Your task to perform on an android device: show emergency info Image 0: 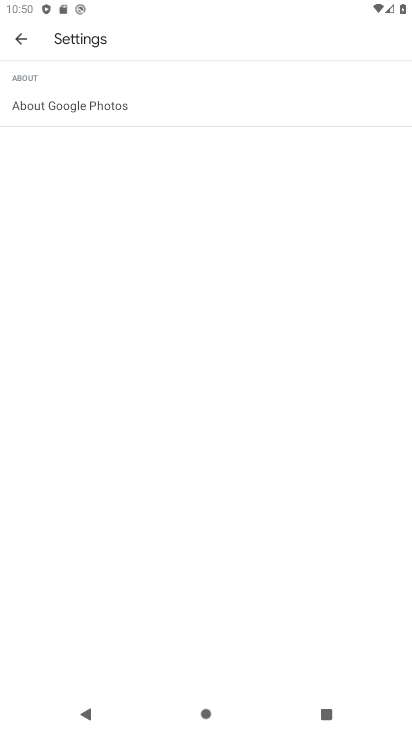
Step 0: press home button
Your task to perform on an android device: show emergency info Image 1: 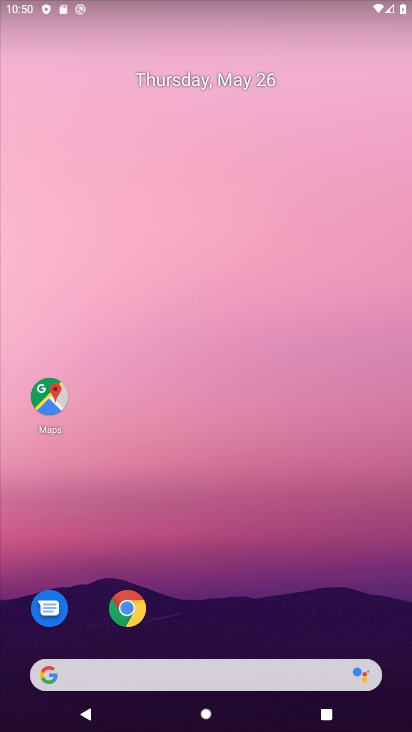
Step 1: drag from (234, 614) to (212, 5)
Your task to perform on an android device: show emergency info Image 2: 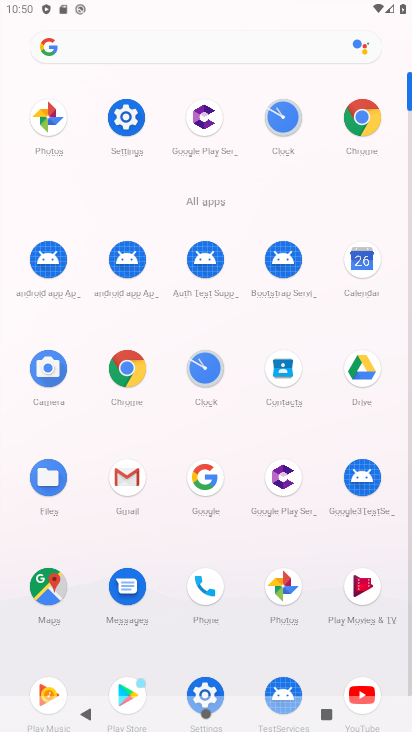
Step 2: click (119, 111)
Your task to perform on an android device: show emergency info Image 3: 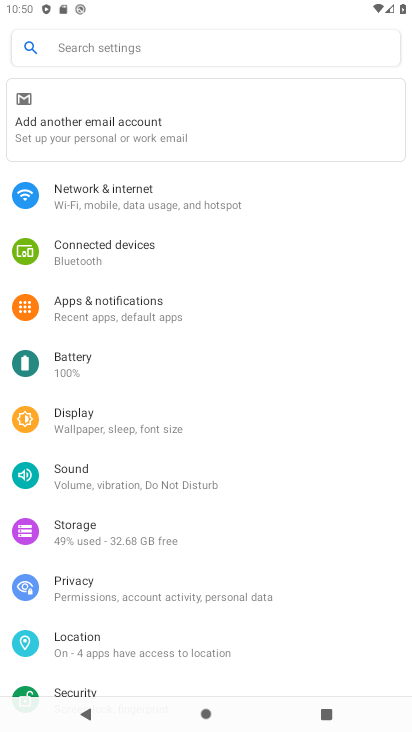
Step 3: drag from (226, 675) to (204, 289)
Your task to perform on an android device: show emergency info Image 4: 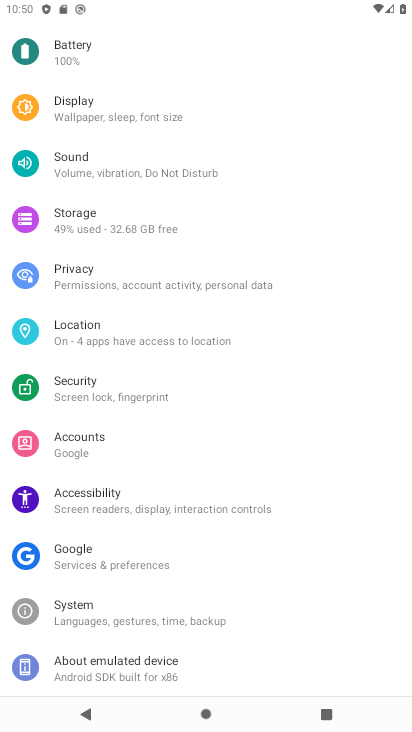
Step 4: click (207, 669)
Your task to perform on an android device: show emergency info Image 5: 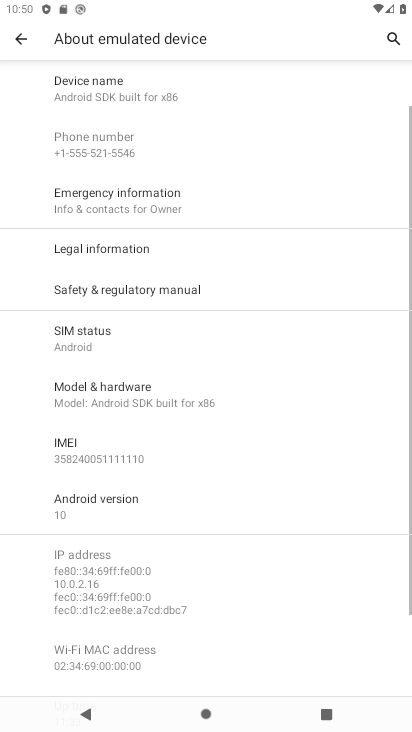
Step 5: click (223, 214)
Your task to perform on an android device: show emergency info Image 6: 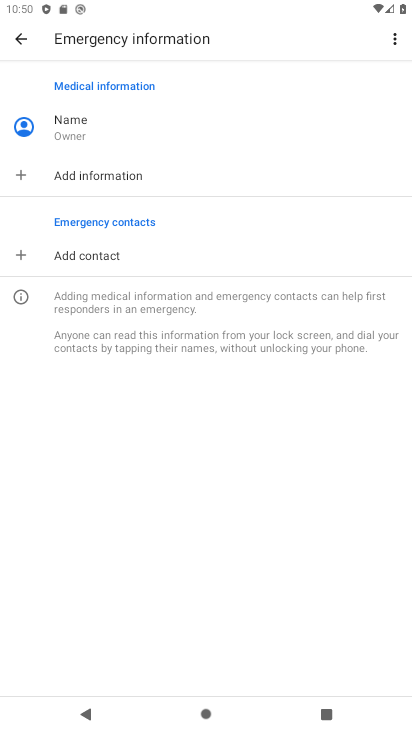
Step 6: task complete